Your task to perform on an android device: Search for sushi restaurants on Maps Image 0: 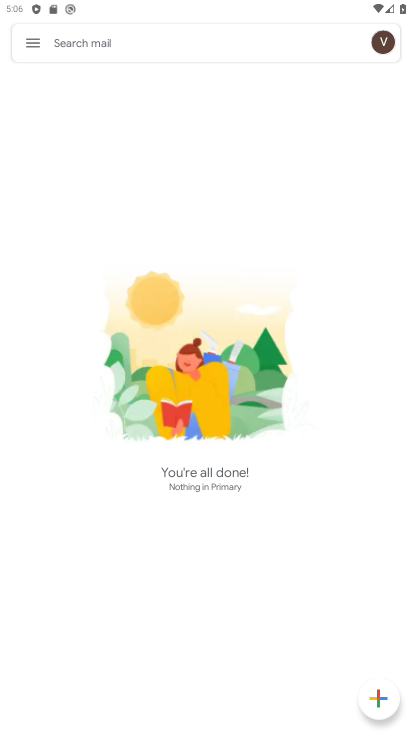
Step 0: press home button
Your task to perform on an android device: Search for sushi restaurants on Maps Image 1: 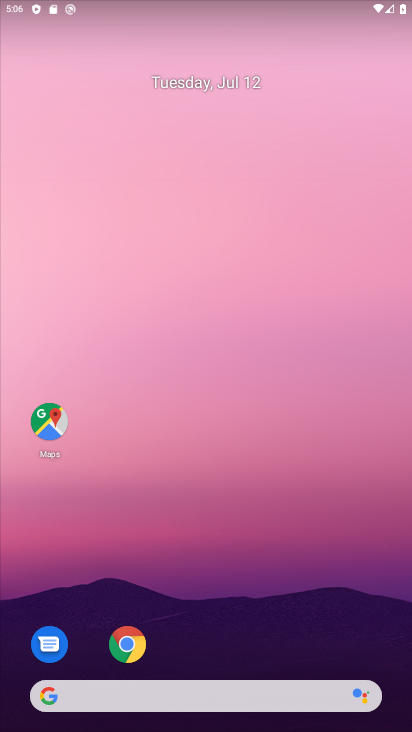
Step 1: drag from (278, 618) to (214, 174)
Your task to perform on an android device: Search for sushi restaurants on Maps Image 2: 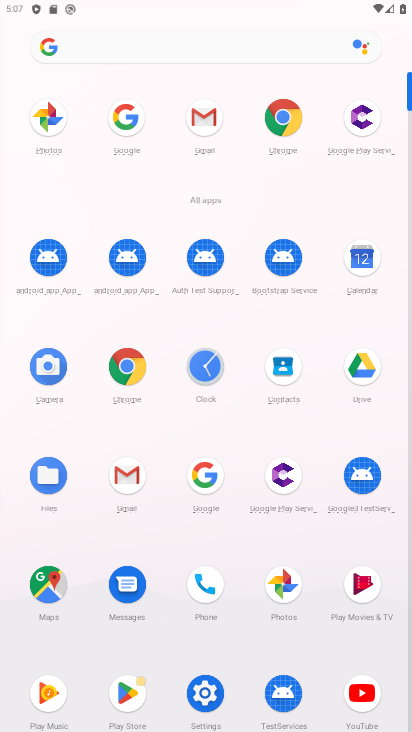
Step 2: click (66, 580)
Your task to perform on an android device: Search for sushi restaurants on Maps Image 3: 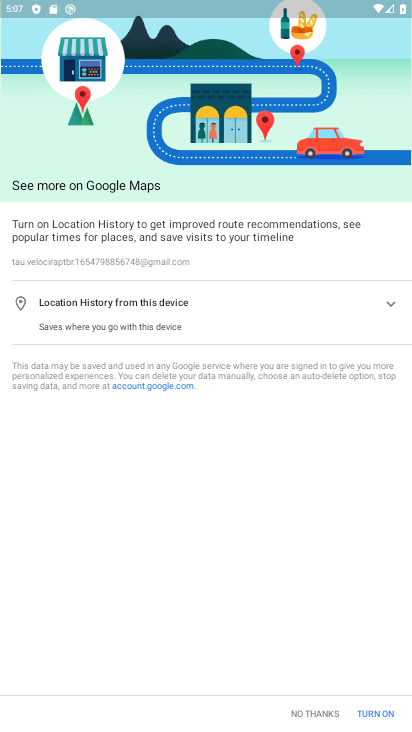
Step 3: click (308, 523)
Your task to perform on an android device: Search for sushi restaurants on Maps Image 4: 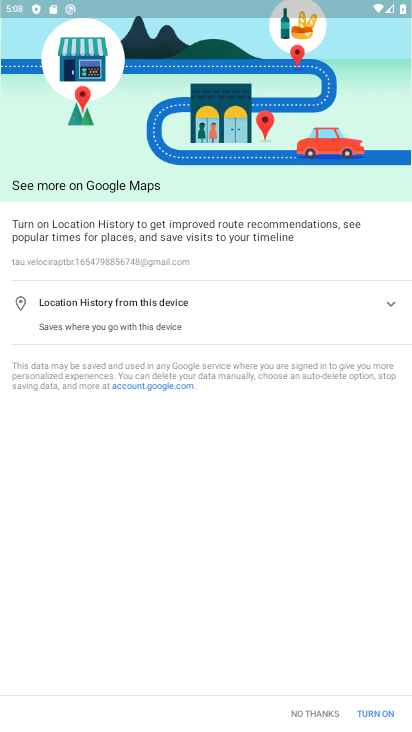
Step 4: click (322, 710)
Your task to perform on an android device: Search for sushi restaurants on Maps Image 5: 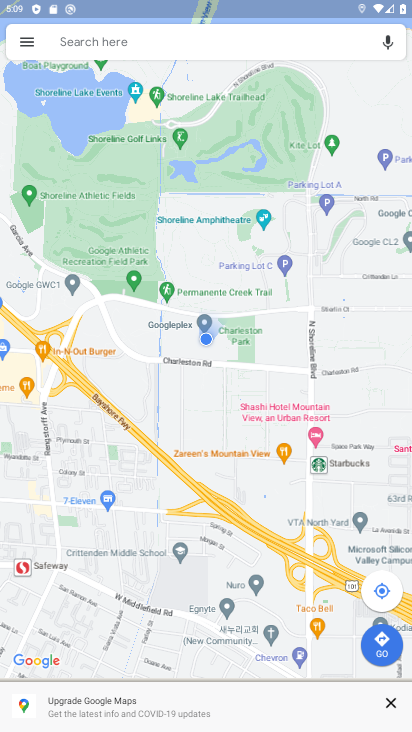
Step 5: click (191, 38)
Your task to perform on an android device: Search for sushi restaurants on Maps Image 6: 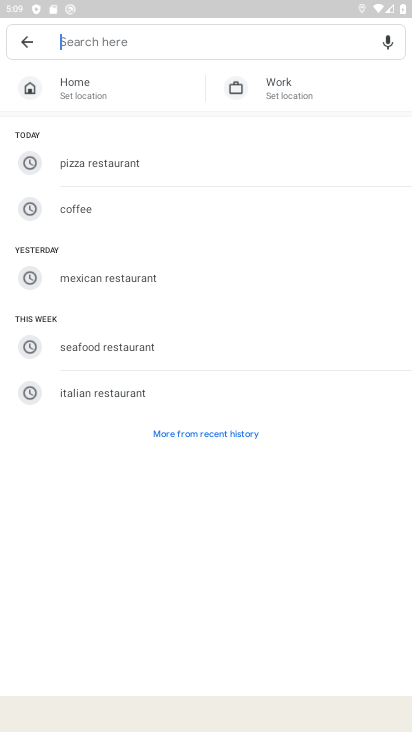
Step 6: type "sushi restaurants"
Your task to perform on an android device: Search for sushi restaurants on Maps Image 7: 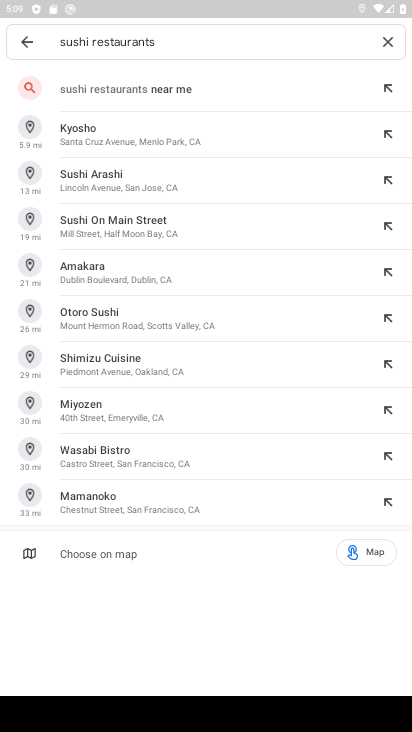
Step 7: click (113, 86)
Your task to perform on an android device: Search for sushi restaurants on Maps Image 8: 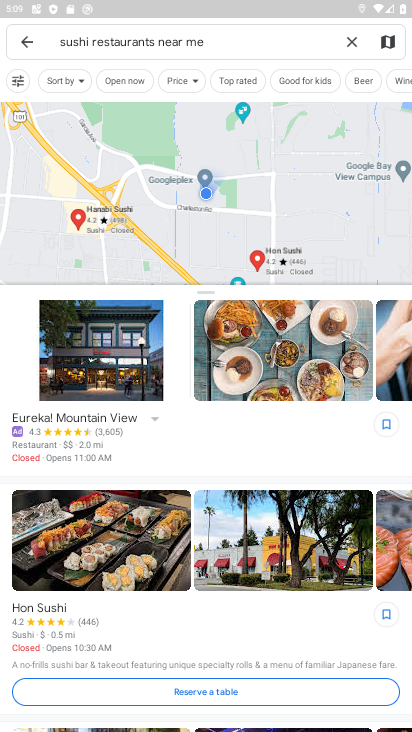
Step 8: task complete